Your task to perform on an android device: star an email in the gmail app Image 0: 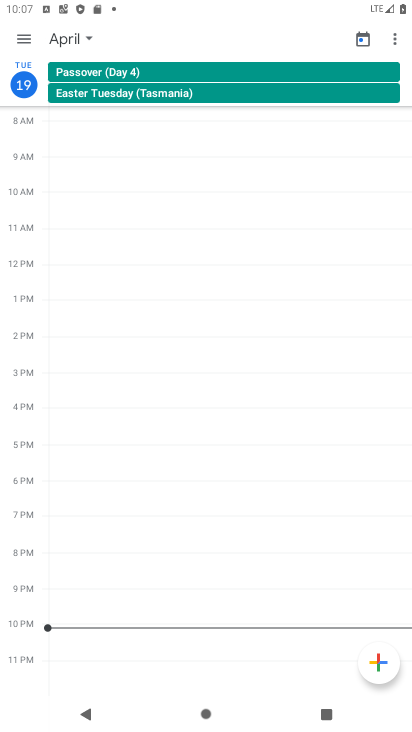
Step 0: press home button
Your task to perform on an android device: star an email in the gmail app Image 1: 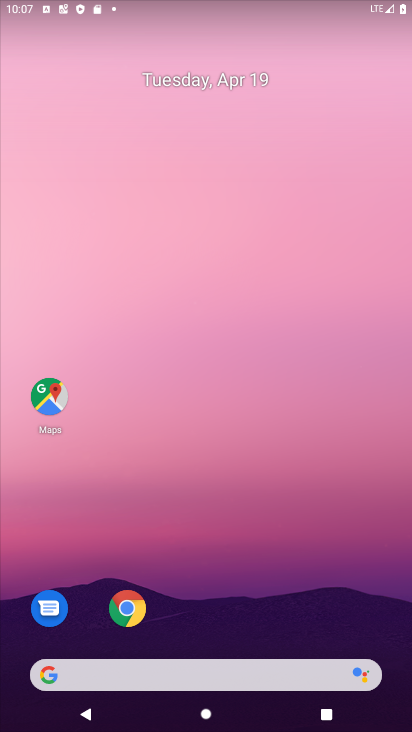
Step 1: drag from (357, 624) to (271, 176)
Your task to perform on an android device: star an email in the gmail app Image 2: 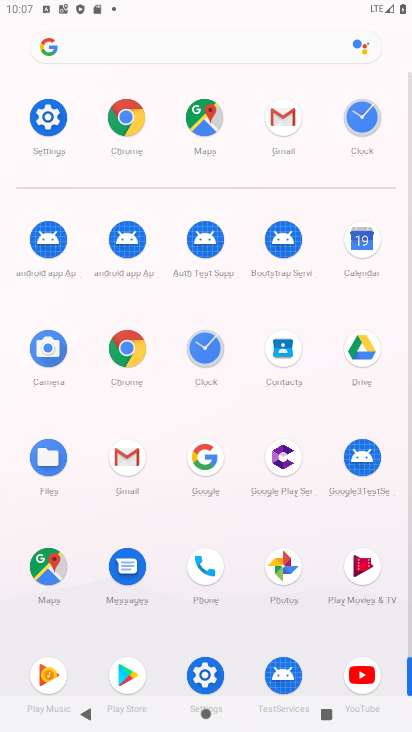
Step 2: click (125, 456)
Your task to perform on an android device: star an email in the gmail app Image 3: 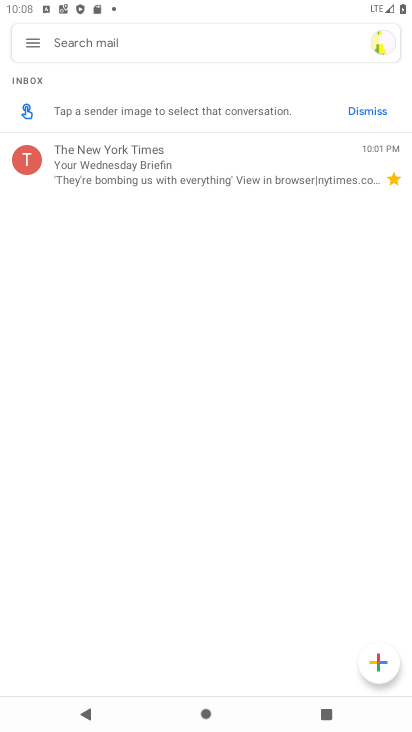
Step 3: click (31, 43)
Your task to perform on an android device: star an email in the gmail app Image 4: 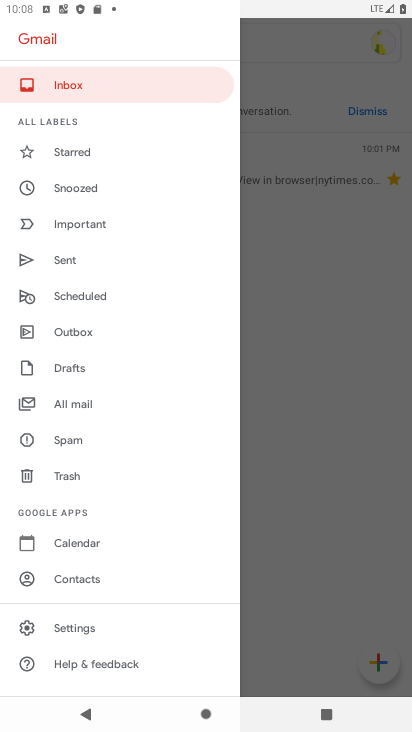
Step 4: click (65, 398)
Your task to perform on an android device: star an email in the gmail app Image 5: 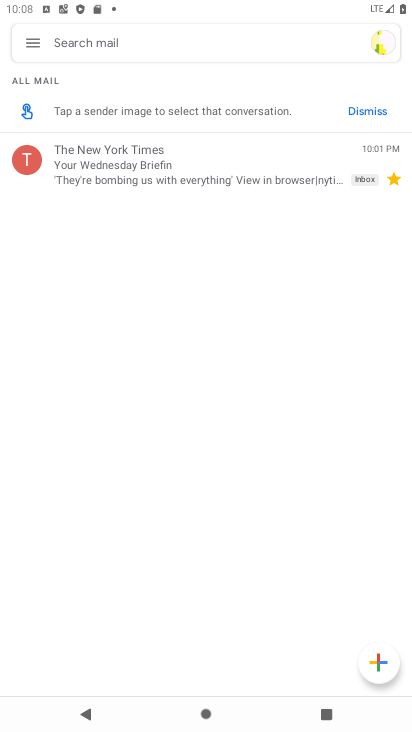
Step 5: task complete